Your task to perform on an android device: turn on the 24-hour format for clock Image 0: 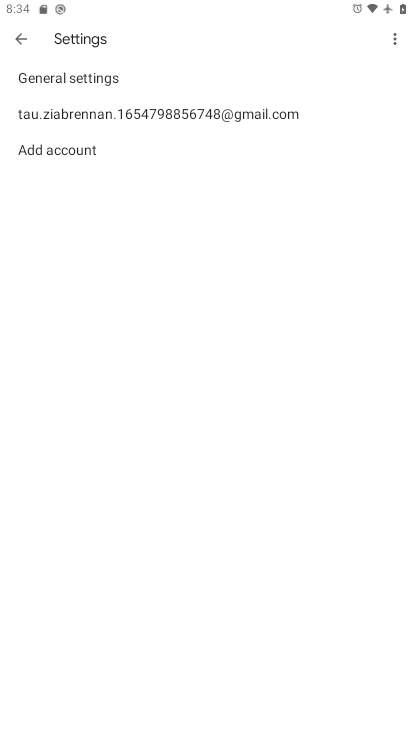
Step 0: press home button
Your task to perform on an android device: turn on the 24-hour format for clock Image 1: 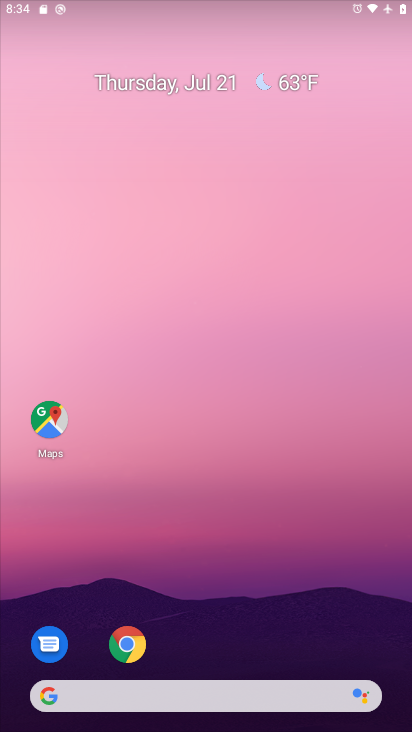
Step 1: drag from (209, 620) to (197, 125)
Your task to perform on an android device: turn on the 24-hour format for clock Image 2: 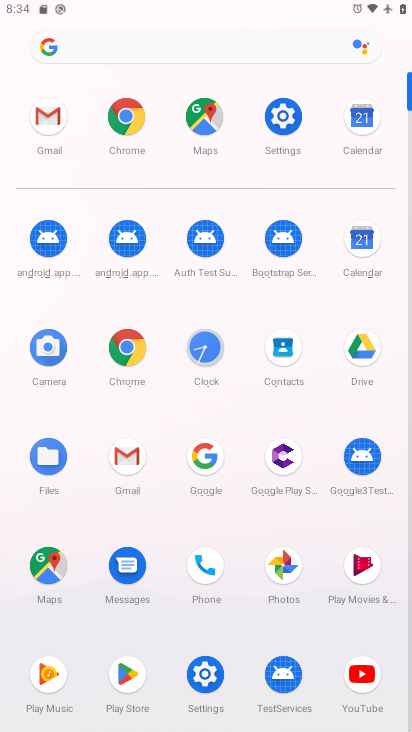
Step 2: click (209, 342)
Your task to perform on an android device: turn on the 24-hour format for clock Image 3: 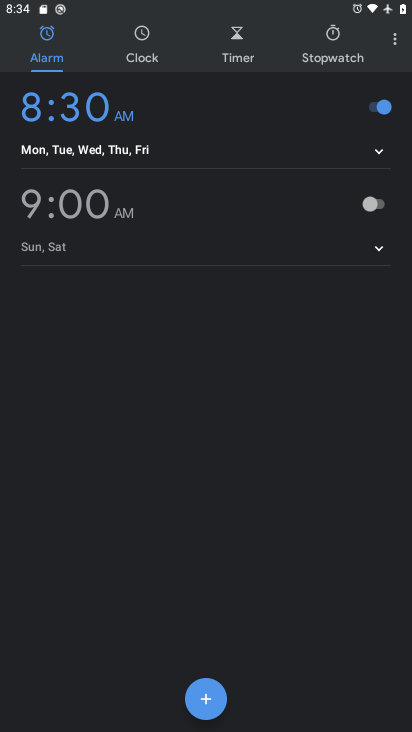
Step 3: click (403, 46)
Your task to perform on an android device: turn on the 24-hour format for clock Image 4: 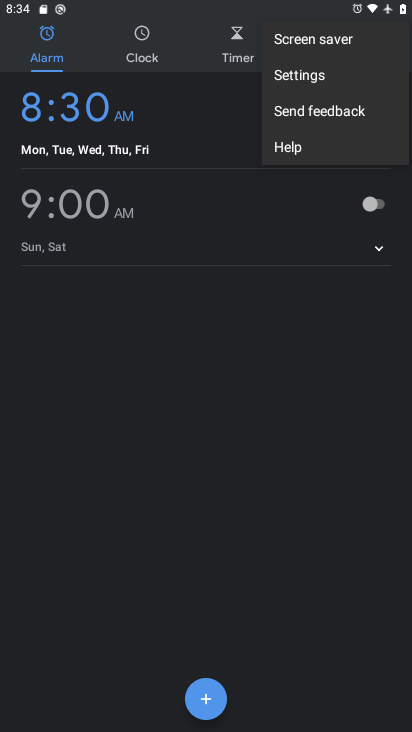
Step 4: click (309, 84)
Your task to perform on an android device: turn on the 24-hour format for clock Image 5: 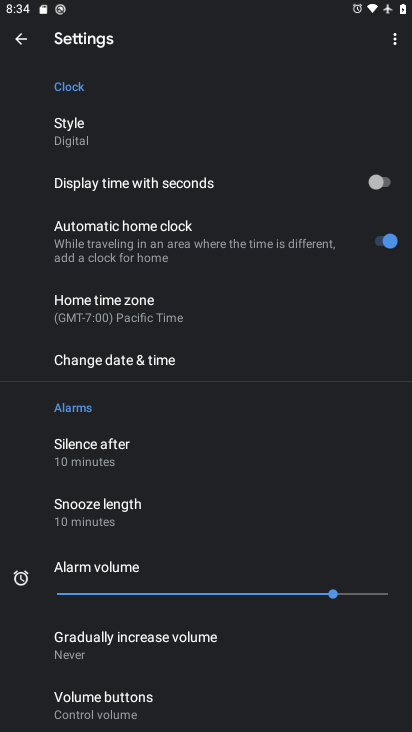
Step 5: click (166, 366)
Your task to perform on an android device: turn on the 24-hour format for clock Image 6: 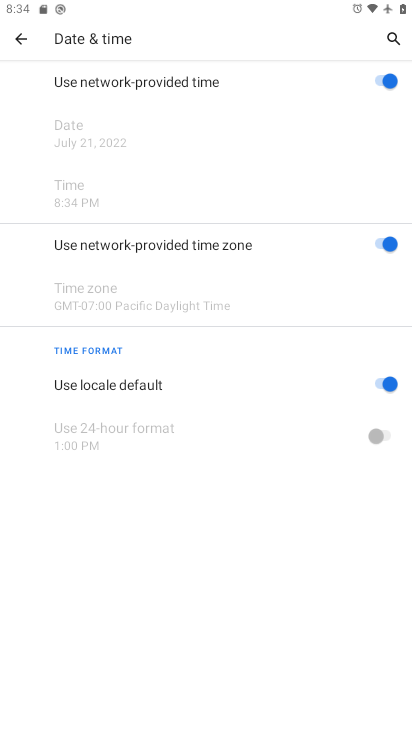
Step 6: click (389, 376)
Your task to perform on an android device: turn on the 24-hour format for clock Image 7: 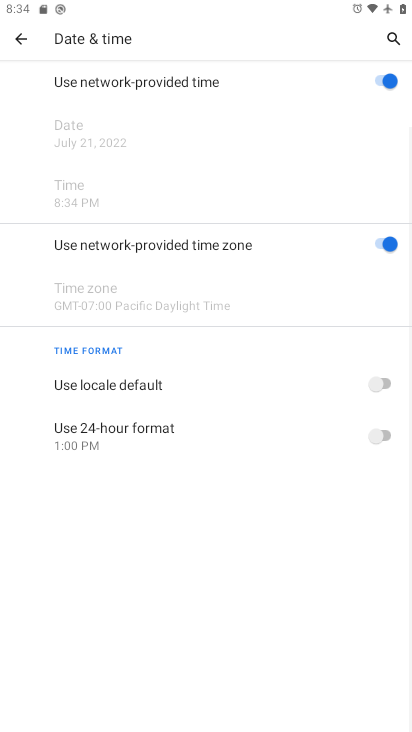
Step 7: click (381, 432)
Your task to perform on an android device: turn on the 24-hour format for clock Image 8: 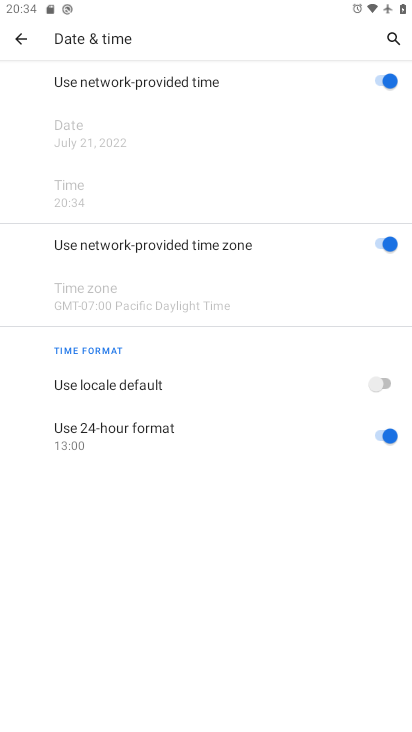
Step 8: task complete